Your task to perform on an android device: Open the calendar and show me this week's events Image 0: 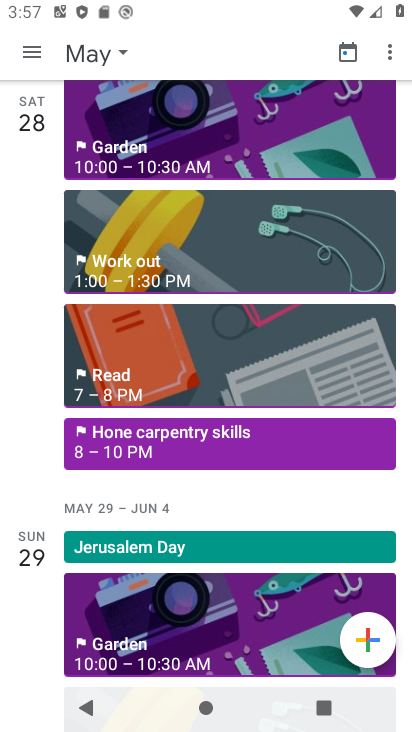
Step 0: press home button
Your task to perform on an android device: Open the calendar and show me this week's events Image 1: 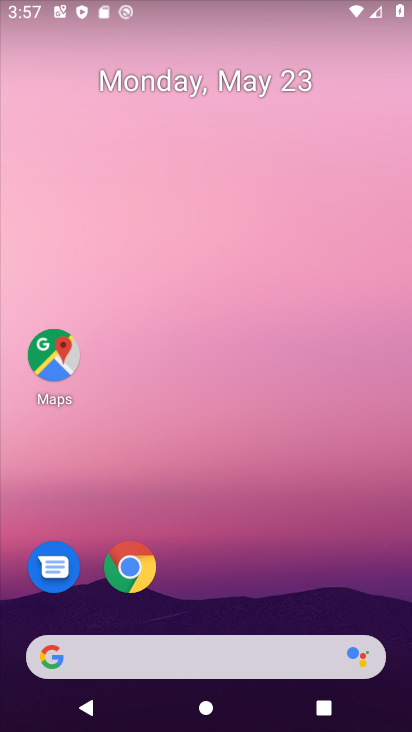
Step 1: drag from (398, 647) to (280, 128)
Your task to perform on an android device: Open the calendar and show me this week's events Image 2: 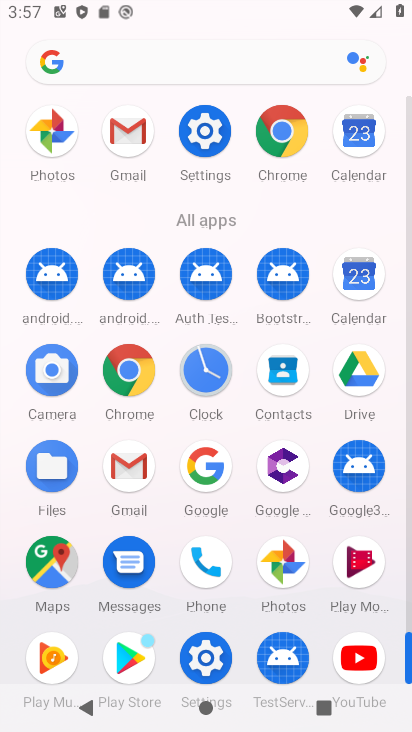
Step 2: click (358, 272)
Your task to perform on an android device: Open the calendar and show me this week's events Image 3: 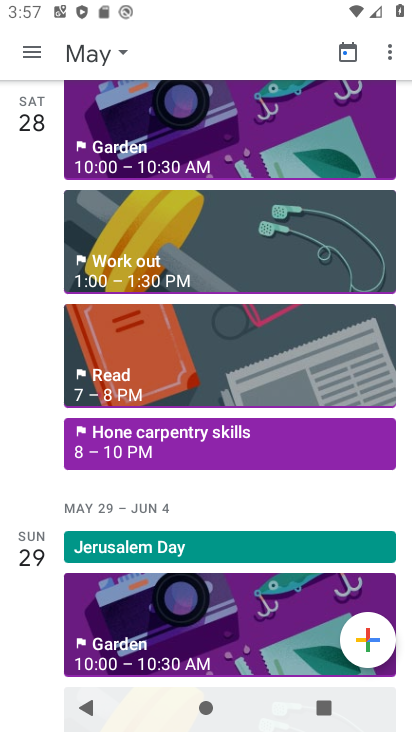
Step 3: click (37, 47)
Your task to perform on an android device: Open the calendar and show me this week's events Image 4: 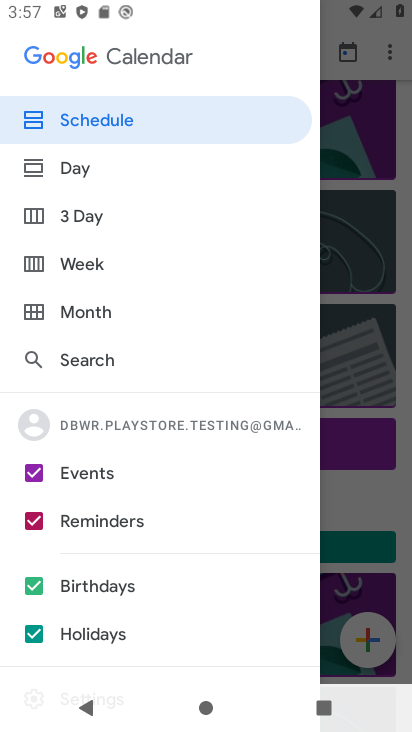
Step 4: click (95, 261)
Your task to perform on an android device: Open the calendar and show me this week's events Image 5: 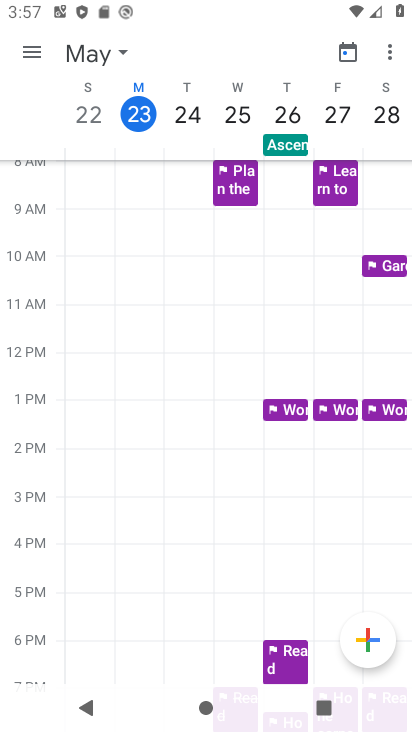
Step 5: task complete